Your task to perform on an android device: turn off wifi Image 0: 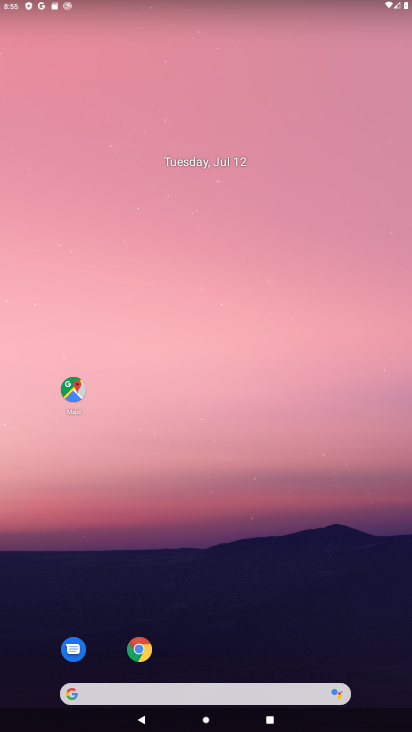
Step 0: drag from (291, 627) to (301, 174)
Your task to perform on an android device: turn off wifi Image 1: 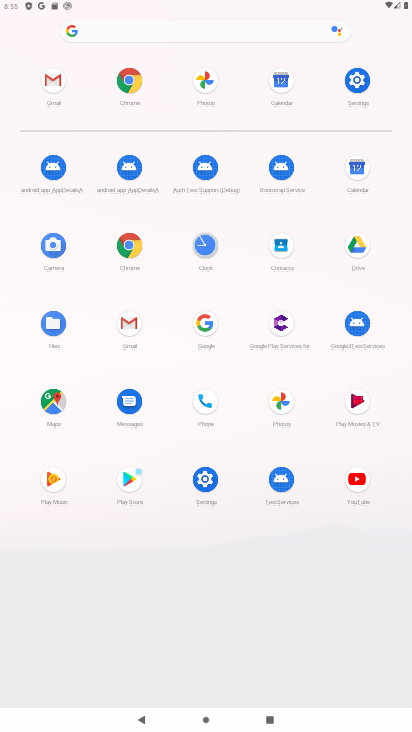
Step 1: click (354, 101)
Your task to perform on an android device: turn off wifi Image 2: 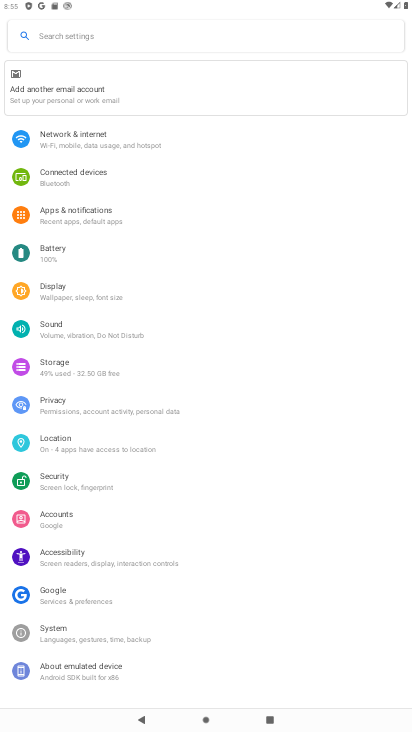
Step 2: click (117, 128)
Your task to perform on an android device: turn off wifi Image 3: 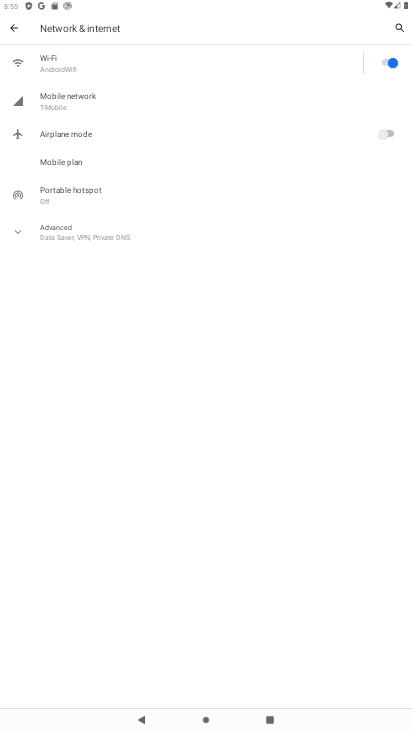
Step 3: click (392, 55)
Your task to perform on an android device: turn off wifi Image 4: 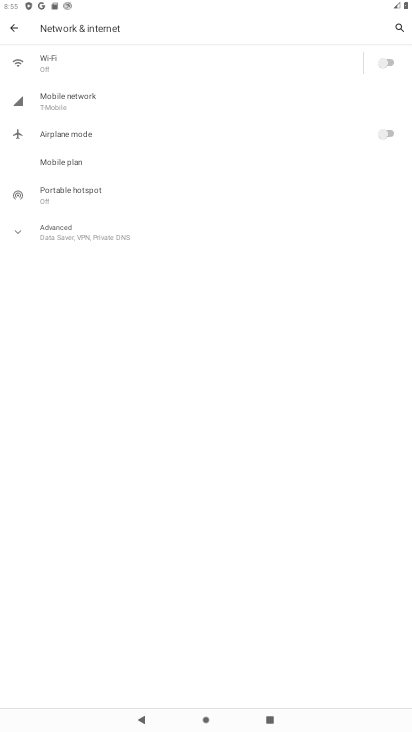
Step 4: task complete